Your task to perform on an android device: Go to privacy settings Image 0: 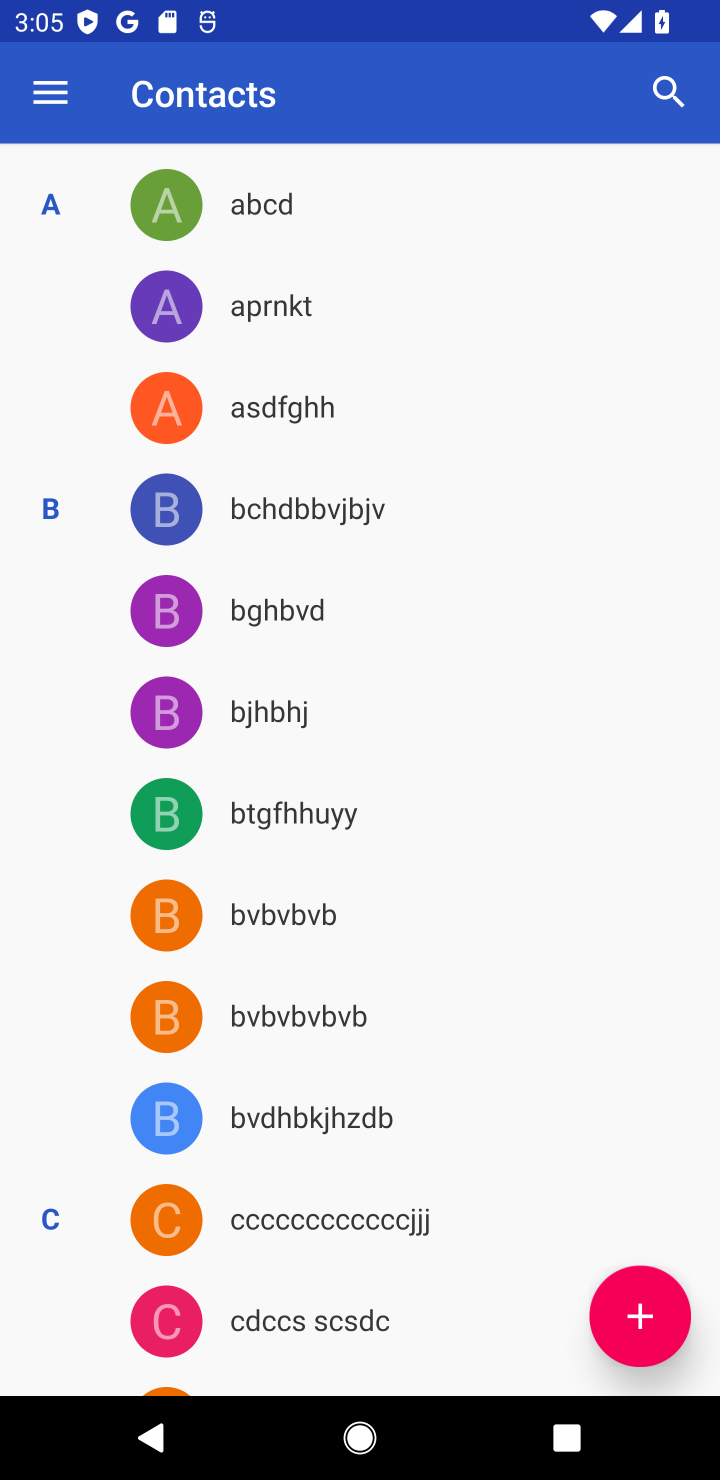
Step 0: press home button
Your task to perform on an android device: Go to privacy settings Image 1: 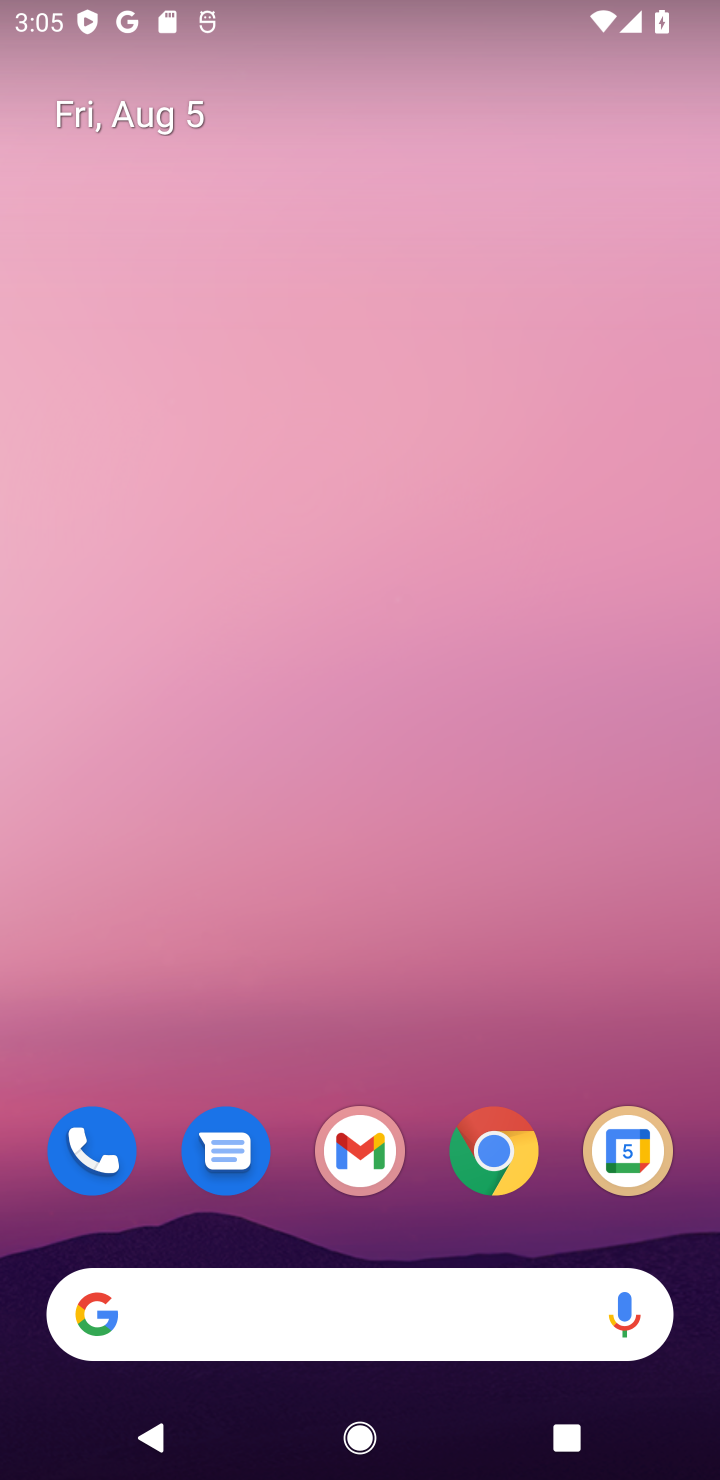
Step 1: drag from (305, 1049) to (547, 46)
Your task to perform on an android device: Go to privacy settings Image 2: 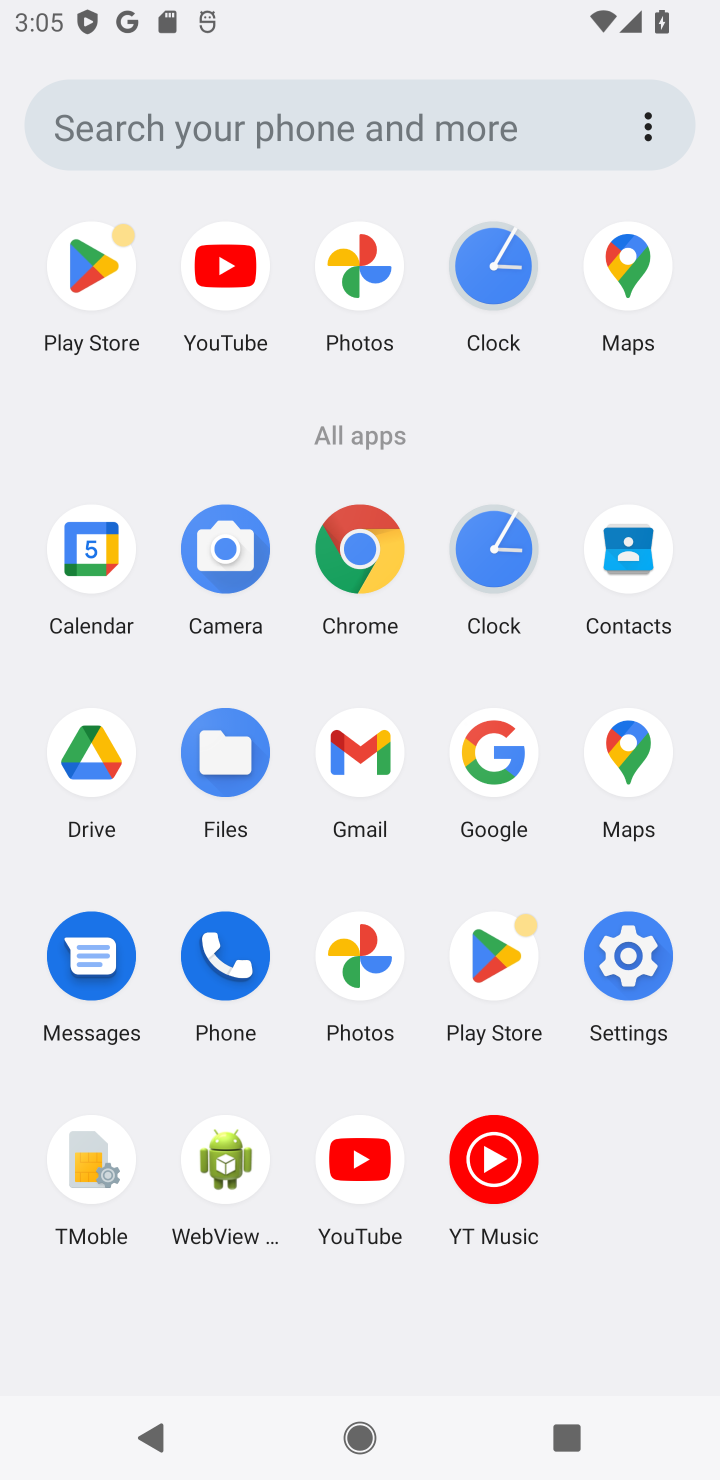
Step 2: click (631, 946)
Your task to perform on an android device: Go to privacy settings Image 3: 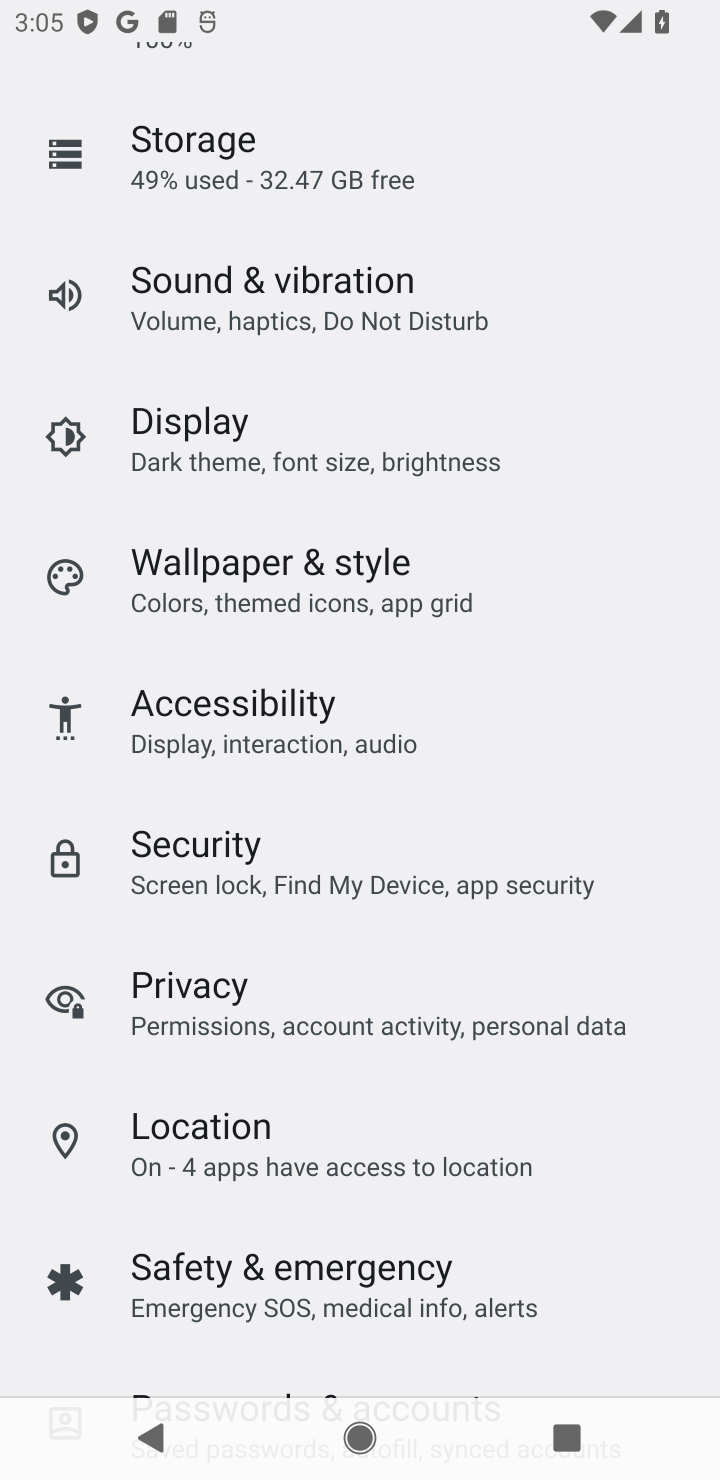
Step 3: click (196, 981)
Your task to perform on an android device: Go to privacy settings Image 4: 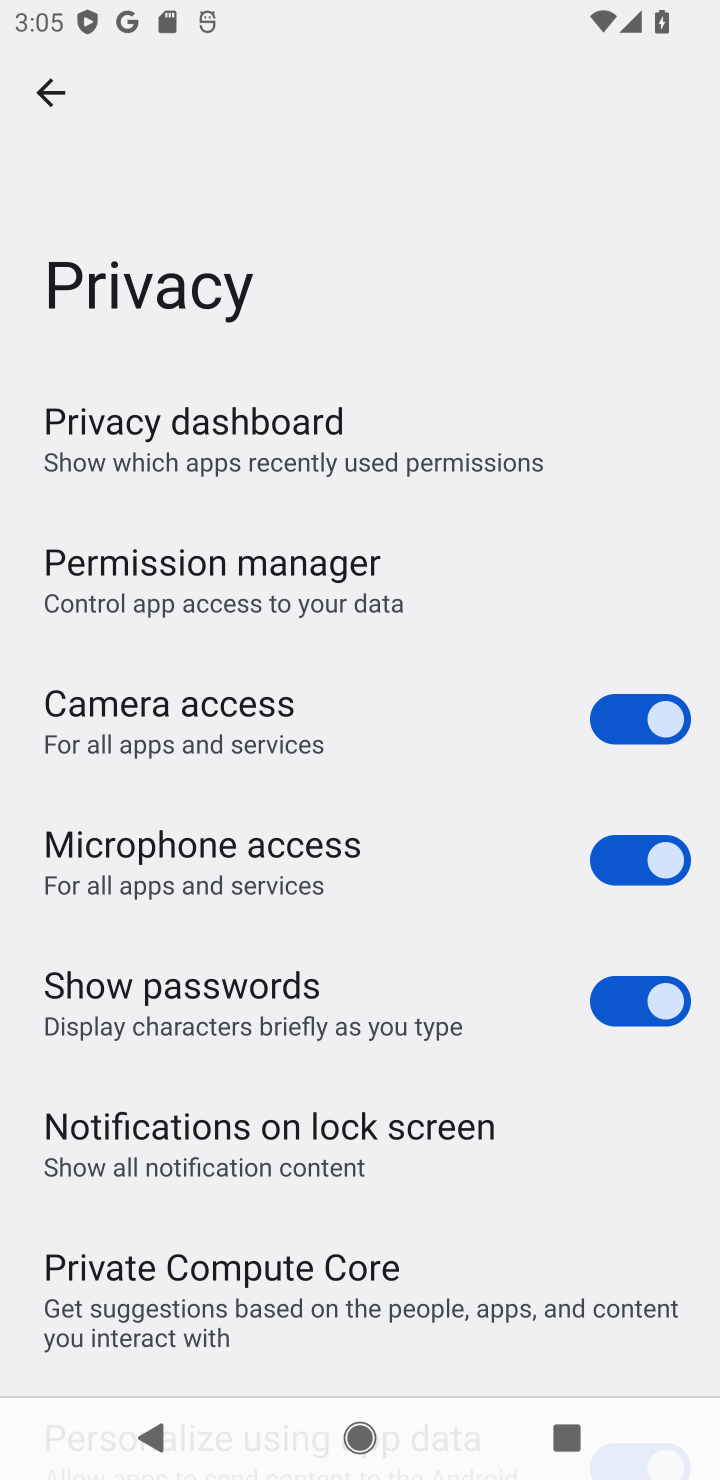
Step 4: task complete